Your task to perform on an android device: View the shopping cart on walmart.com. Add "logitech g pro" to the cart on walmart.com Image 0: 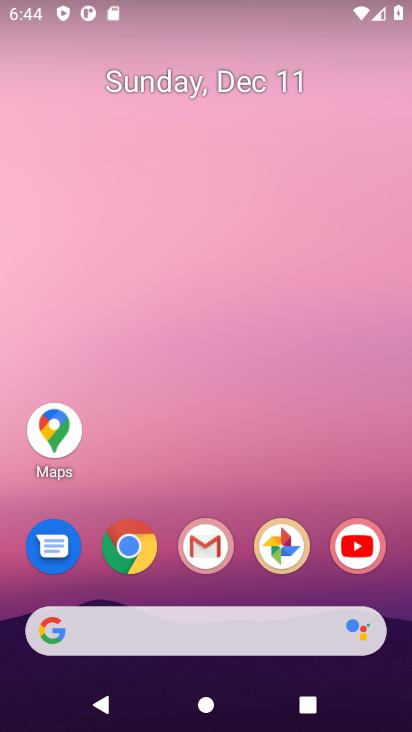
Step 0: click (129, 549)
Your task to perform on an android device: View the shopping cart on walmart.com. Add "logitech g pro" to the cart on walmart.com Image 1: 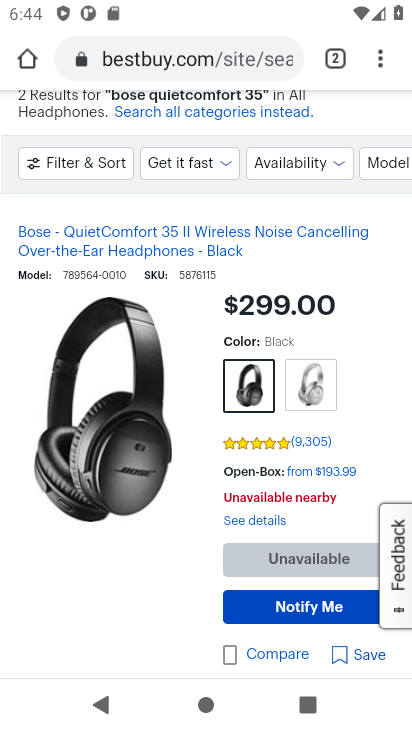
Step 1: click (164, 66)
Your task to perform on an android device: View the shopping cart on walmart.com. Add "logitech g pro" to the cart on walmart.com Image 2: 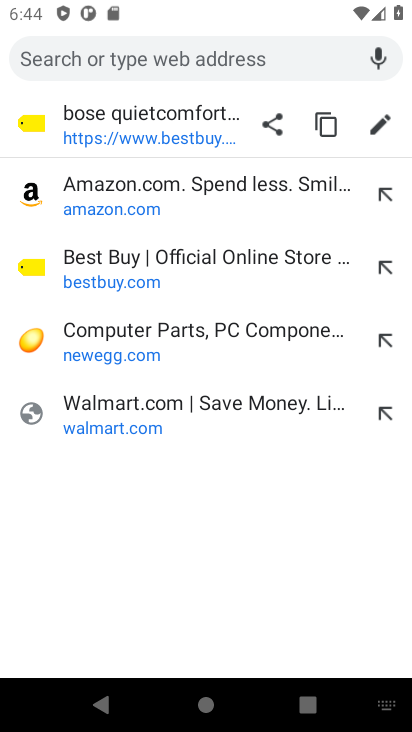
Step 2: click (108, 415)
Your task to perform on an android device: View the shopping cart on walmart.com. Add "logitech g pro" to the cart on walmart.com Image 3: 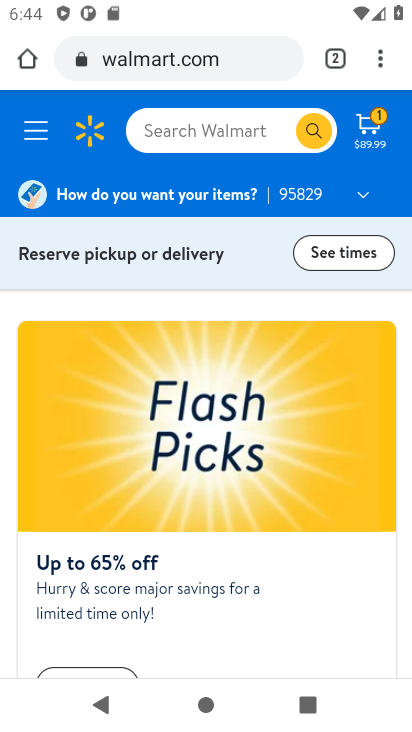
Step 3: click (377, 135)
Your task to perform on an android device: View the shopping cart on walmart.com. Add "logitech g pro" to the cart on walmart.com Image 4: 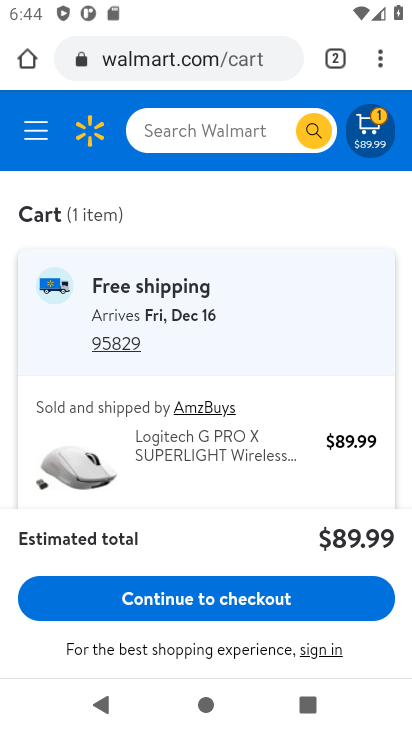
Step 4: click (189, 142)
Your task to perform on an android device: View the shopping cart on walmart.com. Add "logitech g pro" to the cart on walmart.com Image 5: 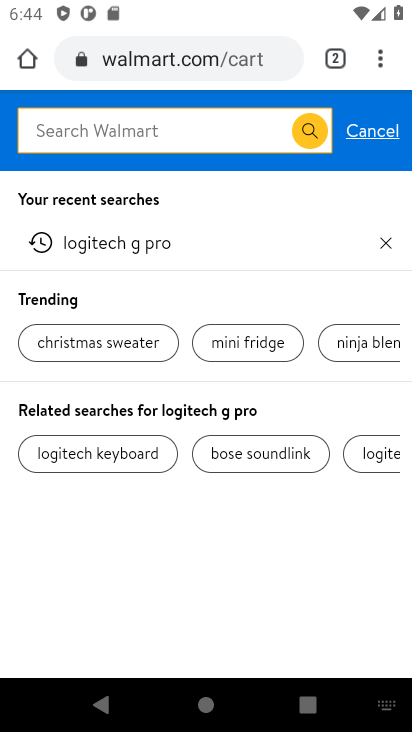
Step 5: type "logitech g pro"
Your task to perform on an android device: View the shopping cart on walmart.com. Add "logitech g pro" to the cart on walmart.com Image 6: 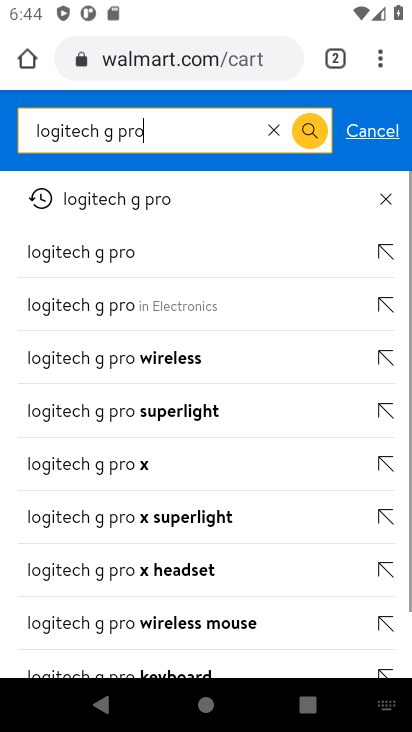
Step 6: click (99, 200)
Your task to perform on an android device: View the shopping cart on walmart.com. Add "logitech g pro" to the cart on walmart.com Image 7: 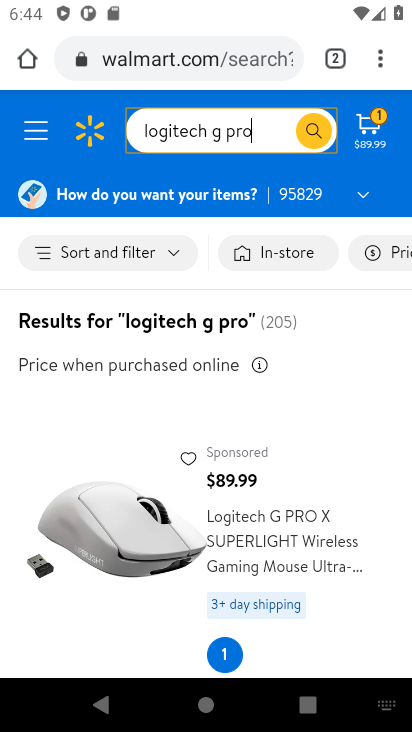
Step 7: drag from (175, 453) to (172, 283)
Your task to perform on an android device: View the shopping cart on walmart.com. Add "logitech g pro" to the cart on walmart.com Image 8: 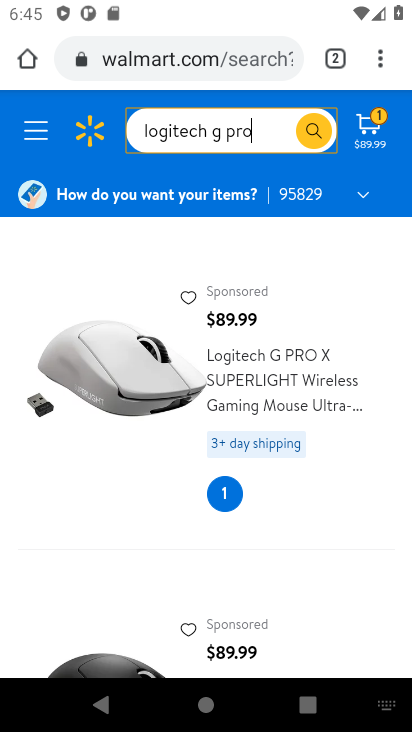
Step 8: click (225, 496)
Your task to perform on an android device: View the shopping cart on walmart.com. Add "logitech g pro" to the cart on walmart.com Image 9: 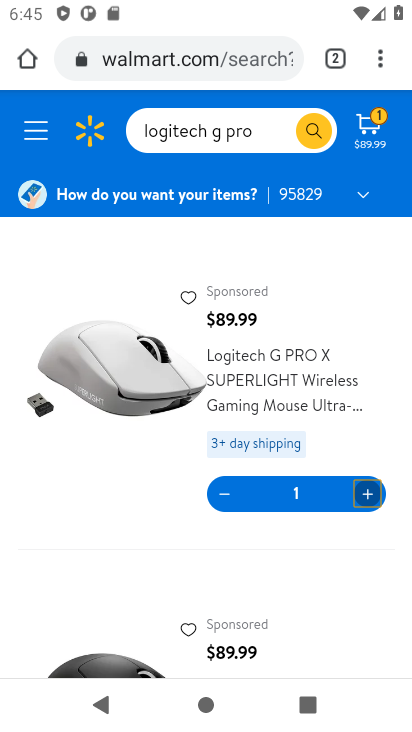
Step 9: click (368, 495)
Your task to perform on an android device: View the shopping cart on walmart.com. Add "logitech g pro" to the cart on walmart.com Image 10: 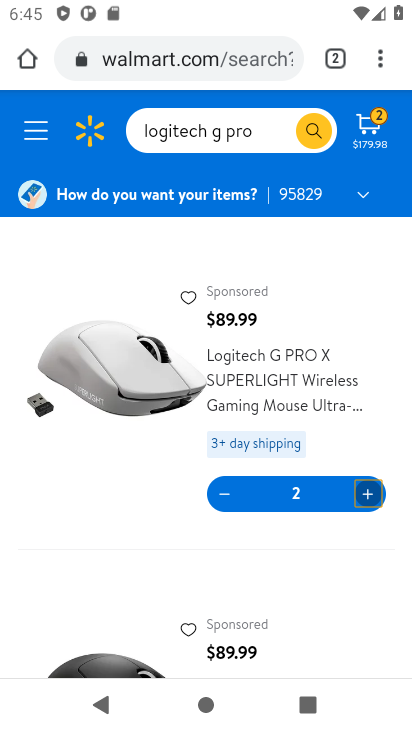
Step 10: task complete